Your task to perform on an android device: What's on my calendar tomorrow? Image 0: 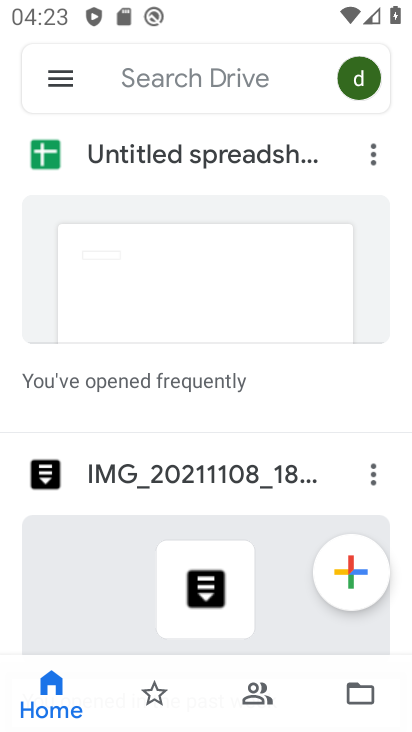
Step 0: press home button
Your task to perform on an android device: What's on my calendar tomorrow? Image 1: 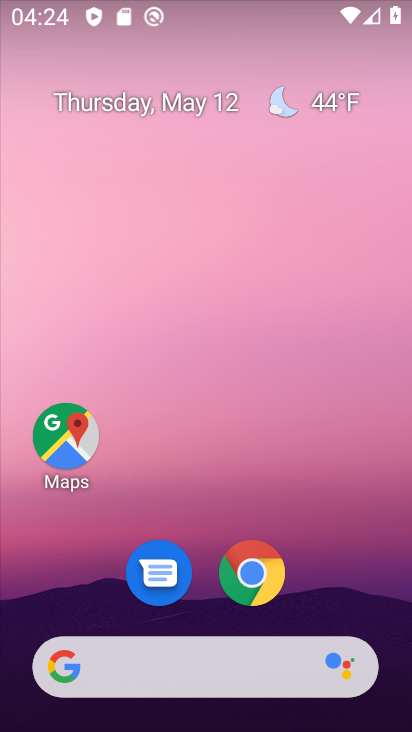
Step 1: drag from (407, 640) to (280, 56)
Your task to perform on an android device: What's on my calendar tomorrow? Image 2: 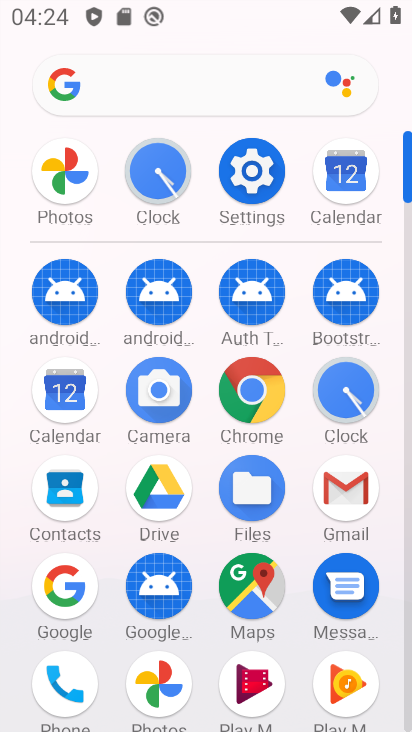
Step 2: click (62, 389)
Your task to perform on an android device: What's on my calendar tomorrow? Image 3: 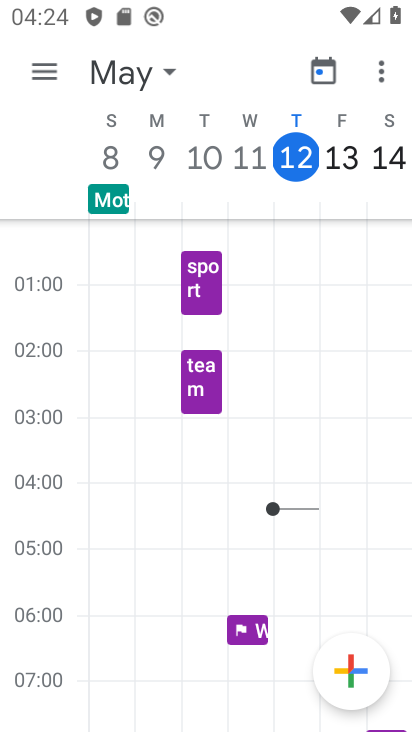
Step 3: click (50, 69)
Your task to perform on an android device: What's on my calendar tomorrow? Image 4: 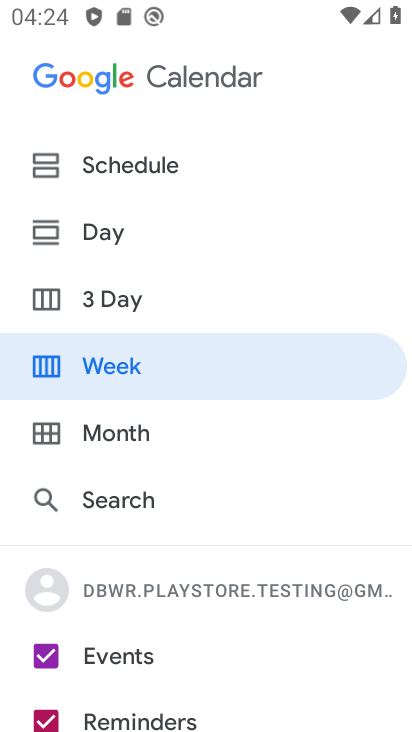
Step 4: click (107, 229)
Your task to perform on an android device: What's on my calendar tomorrow? Image 5: 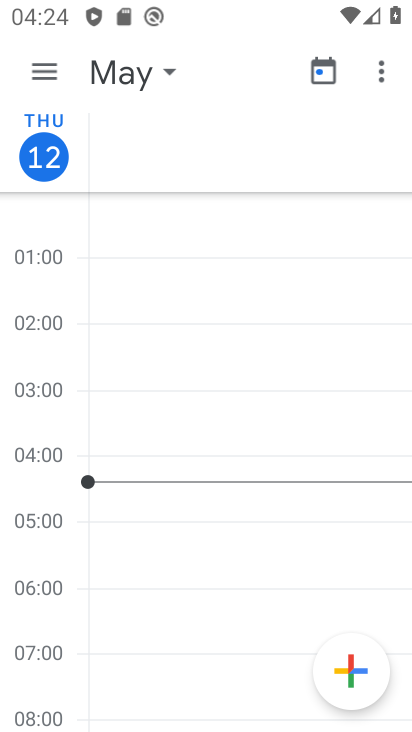
Step 5: click (166, 70)
Your task to perform on an android device: What's on my calendar tomorrow? Image 6: 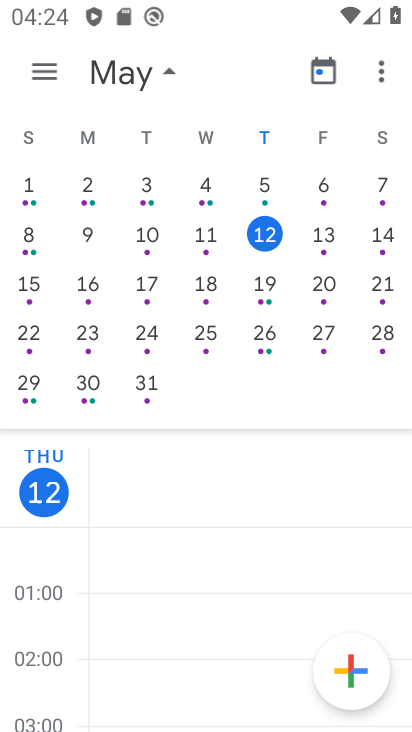
Step 6: click (323, 229)
Your task to perform on an android device: What's on my calendar tomorrow? Image 7: 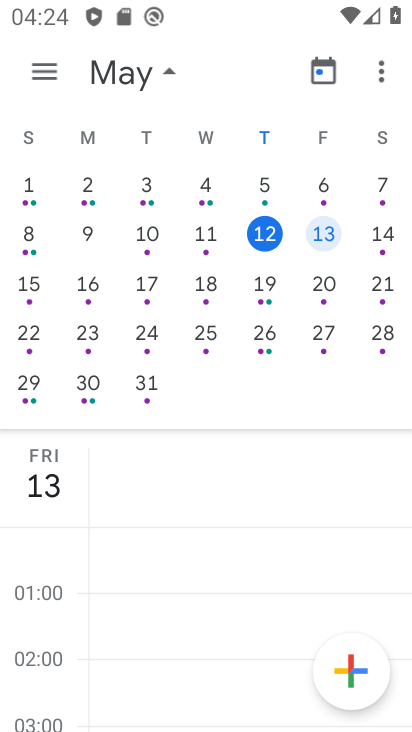
Step 7: task complete